Your task to perform on an android device: Search for Italian restaurants on Maps Image 0: 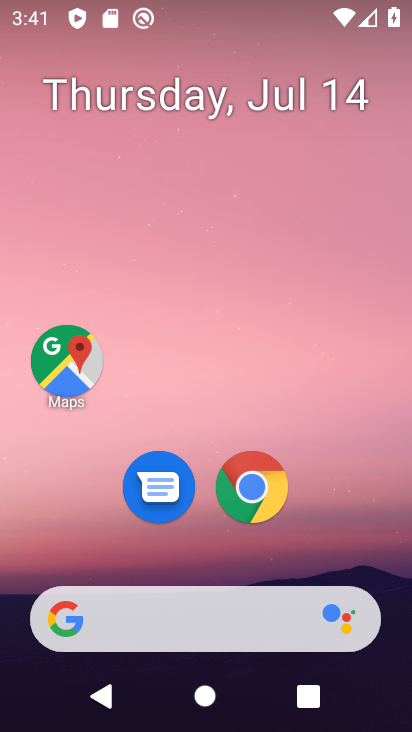
Step 0: drag from (261, 571) to (266, 235)
Your task to perform on an android device: Search for Italian restaurants on Maps Image 1: 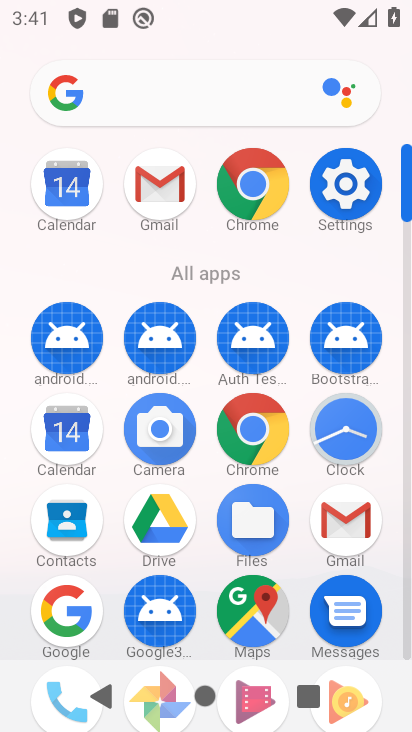
Step 1: click (255, 625)
Your task to perform on an android device: Search for Italian restaurants on Maps Image 2: 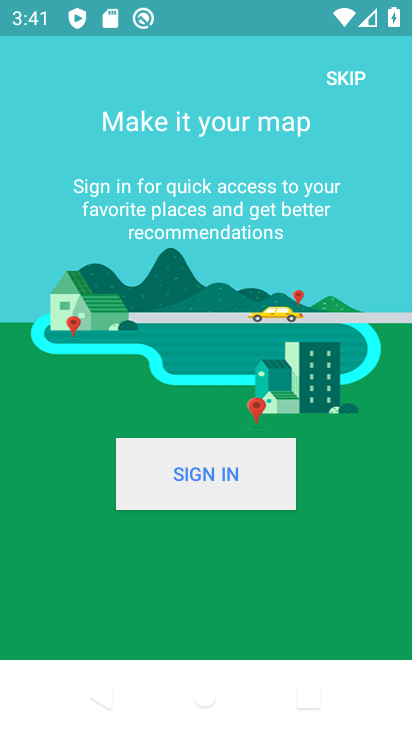
Step 2: click (336, 93)
Your task to perform on an android device: Search for Italian restaurants on Maps Image 3: 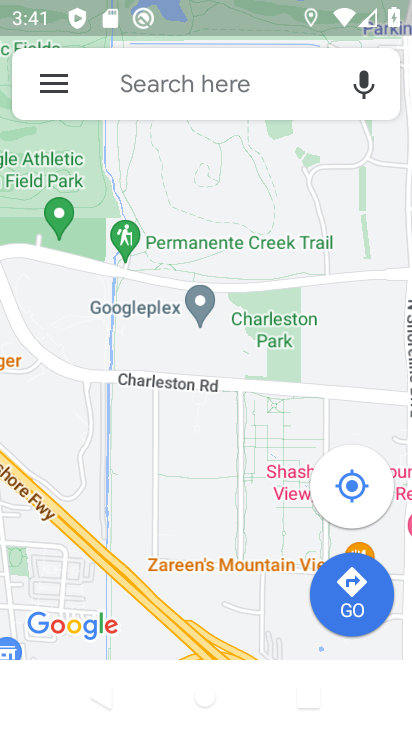
Step 3: click (241, 87)
Your task to perform on an android device: Search for Italian restaurants on Maps Image 4: 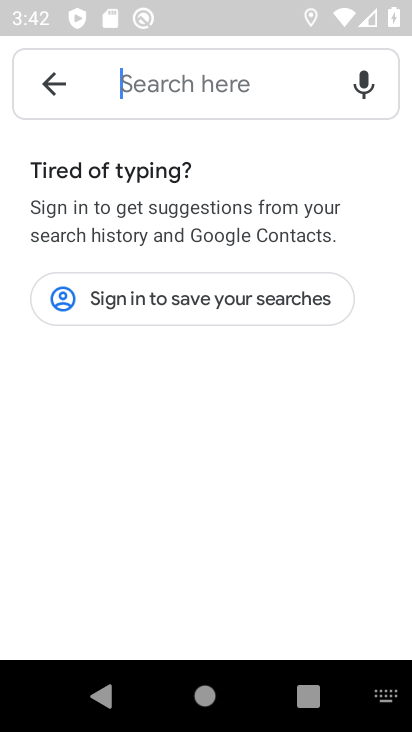
Step 4: type "italian"
Your task to perform on an android device: Search for Italian restaurants on Maps Image 5: 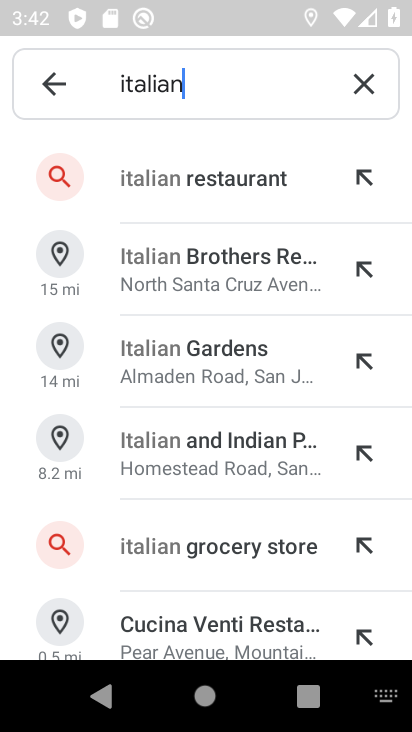
Step 5: click (203, 184)
Your task to perform on an android device: Search for Italian restaurants on Maps Image 6: 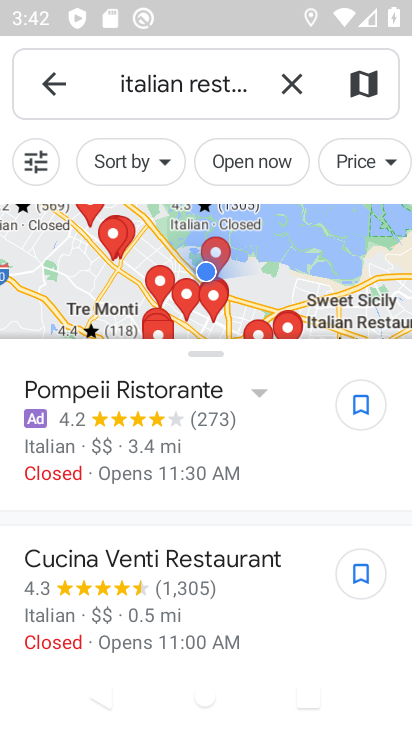
Step 6: task complete